Your task to perform on an android device: Open the phone app and click the voicemail tab. Image 0: 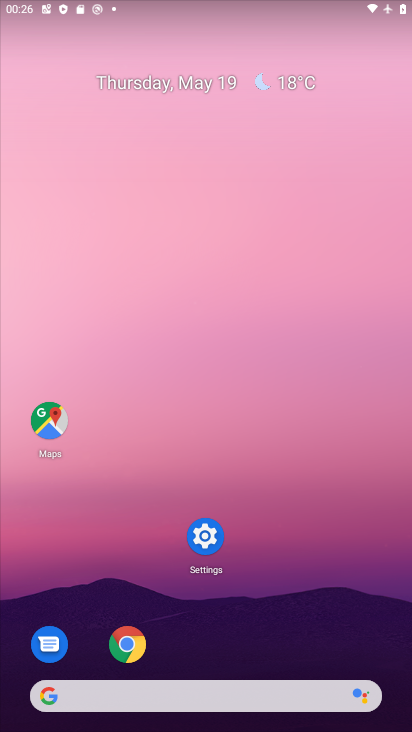
Step 0: drag from (316, 615) to (247, 40)
Your task to perform on an android device: Open the phone app and click the voicemail tab. Image 1: 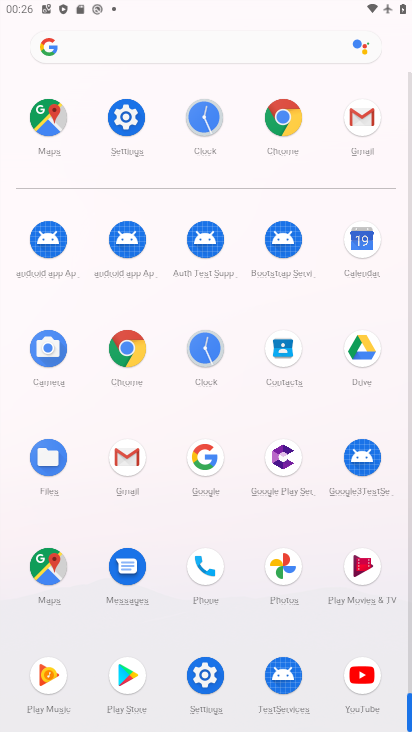
Step 1: click (204, 573)
Your task to perform on an android device: Open the phone app and click the voicemail tab. Image 2: 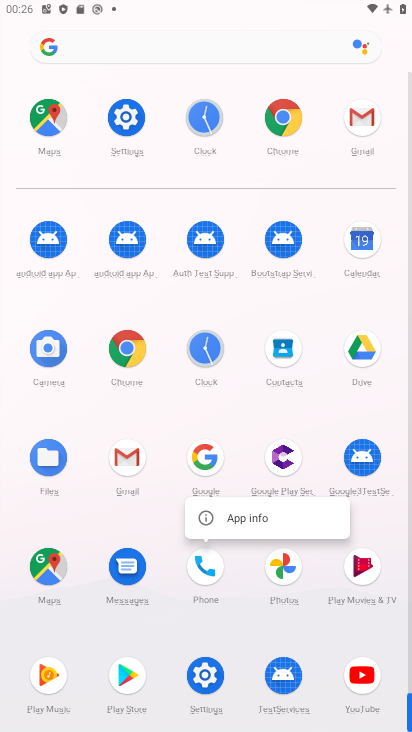
Step 2: click (203, 567)
Your task to perform on an android device: Open the phone app and click the voicemail tab. Image 3: 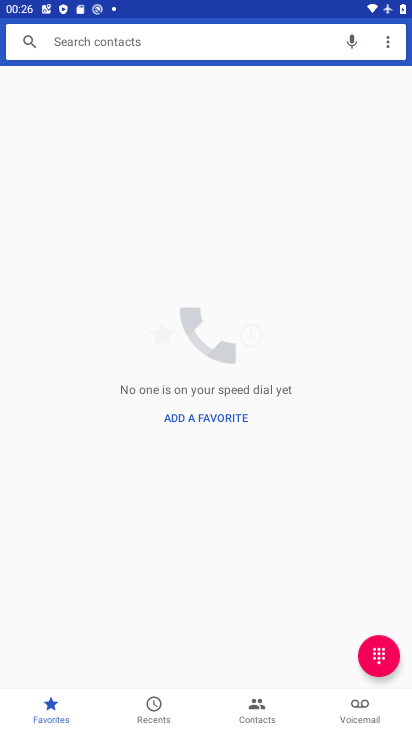
Step 3: click (355, 709)
Your task to perform on an android device: Open the phone app and click the voicemail tab. Image 4: 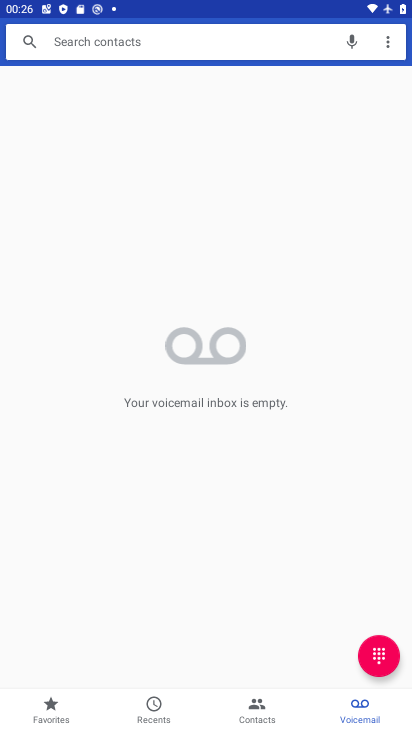
Step 4: task complete